Your task to perform on an android device: turn notification dots off Image 0: 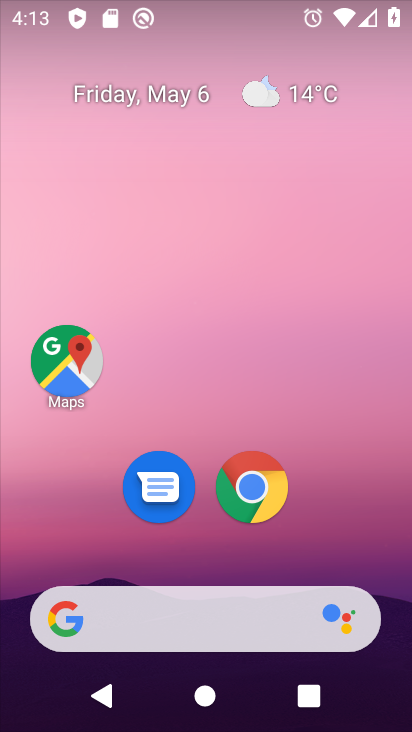
Step 0: drag from (201, 587) to (156, 25)
Your task to perform on an android device: turn notification dots off Image 1: 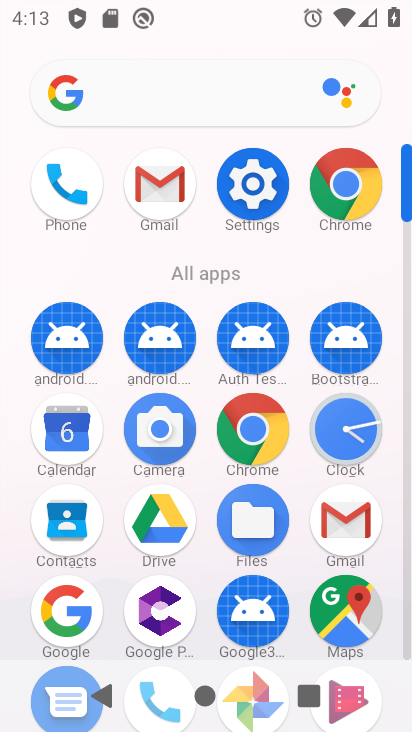
Step 1: click (254, 180)
Your task to perform on an android device: turn notification dots off Image 2: 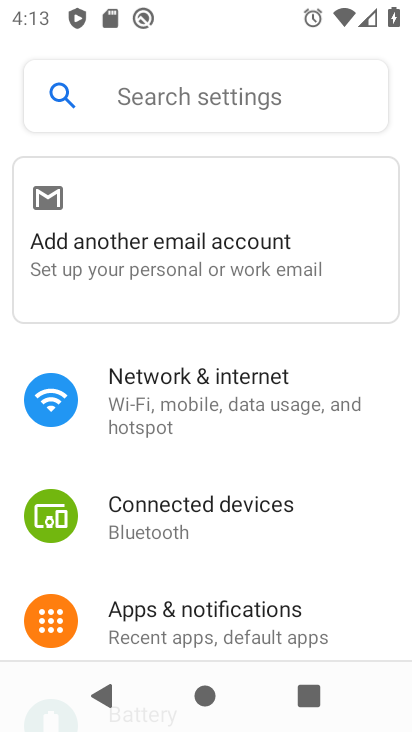
Step 2: click (200, 603)
Your task to perform on an android device: turn notification dots off Image 3: 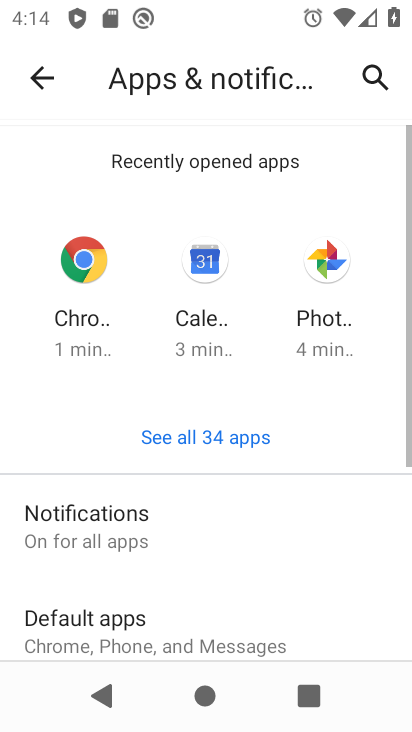
Step 3: click (134, 529)
Your task to perform on an android device: turn notification dots off Image 4: 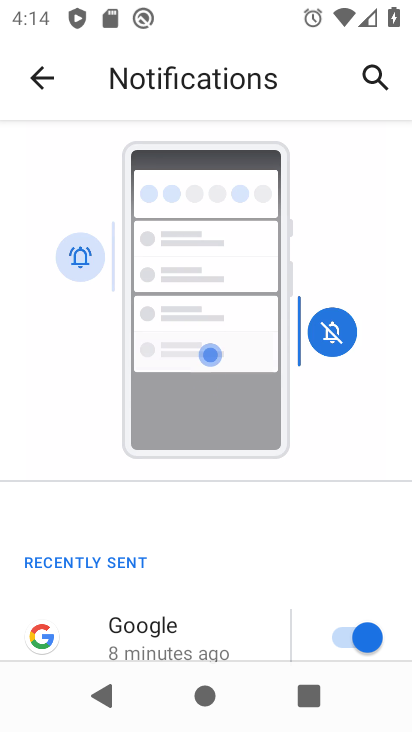
Step 4: drag from (213, 563) to (368, 6)
Your task to perform on an android device: turn notification dots off Image 5: 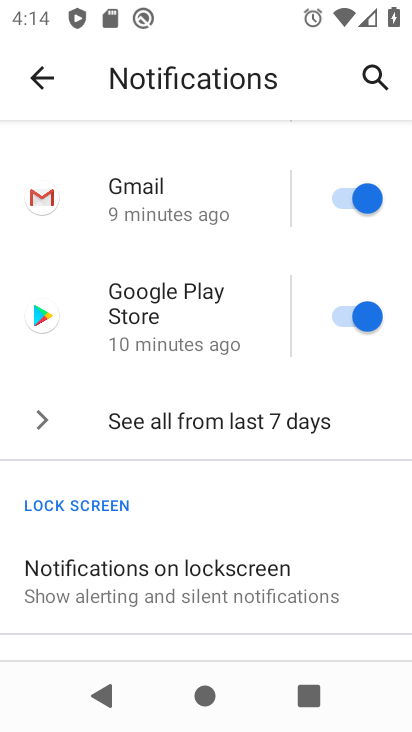
Step 5: drag from (277, 544) to (192, 3)
Your task to perform on an android device: turn notification dots off Image 6: 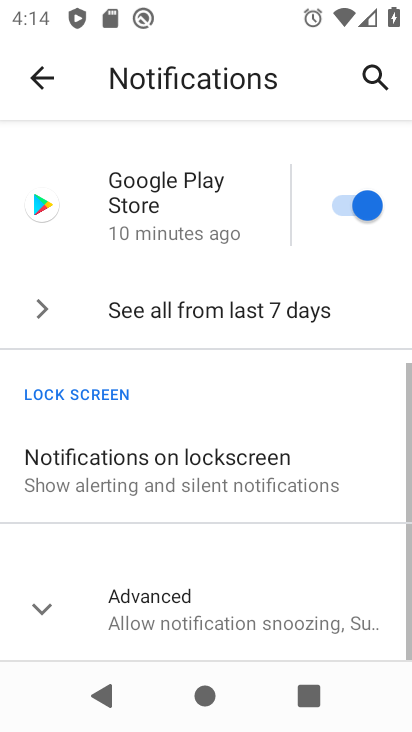
Step 6: click (169, 578)
Your task to perform on an android device: turn notification dots off Image 7: 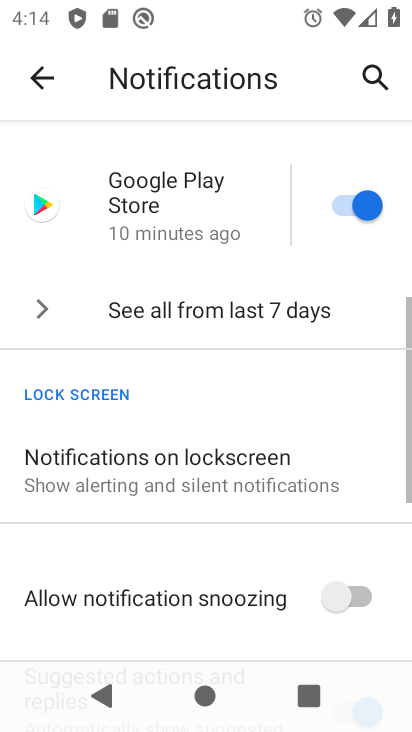
Step 7: task complete